Your task to perform on an android device: When is my next meeting? Image 0: 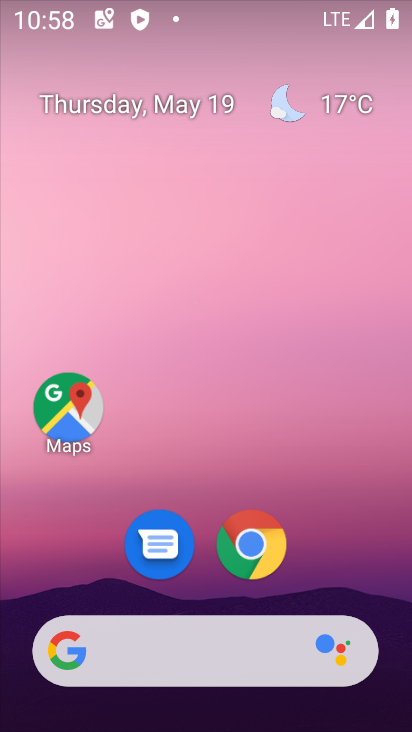
Step 0: drag from (78, 679) to (232, 5)
Your task to perform on an android device: When is my next meeting? Image 1: 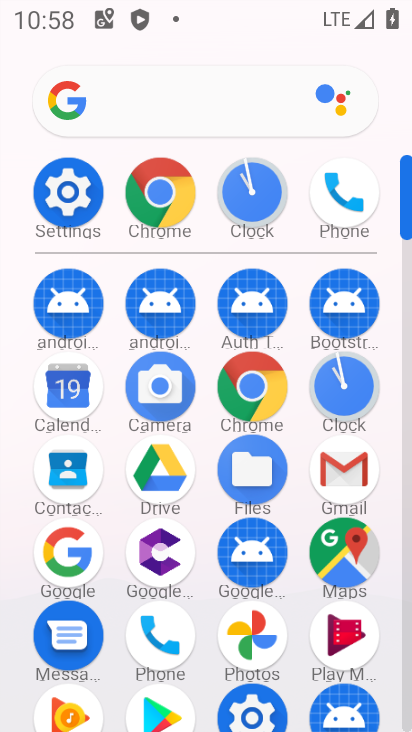
Step 1: click (73, 397)
Your task to perform on an android device: When is my next meeting? Image 2: 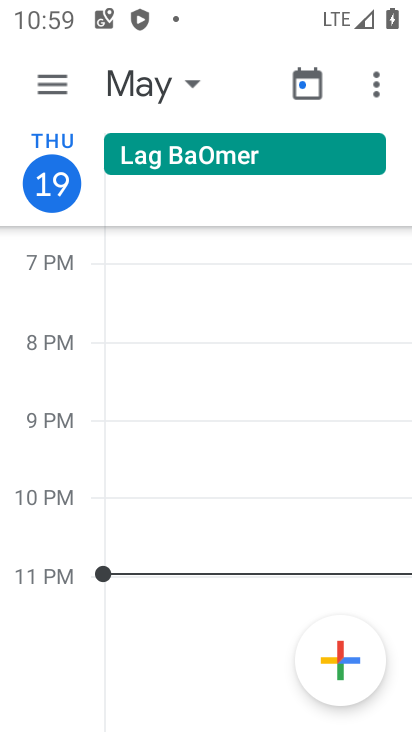
Step 2: task complete